Your task to perform on an android device: Open Chrome and go to settings Image 0: 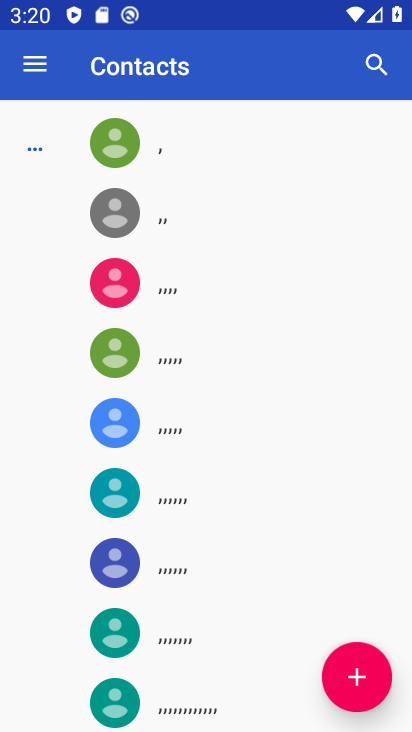
Step 0: press back button
Your task to perform on an android device: Open Chrome and go to settings Image 1: 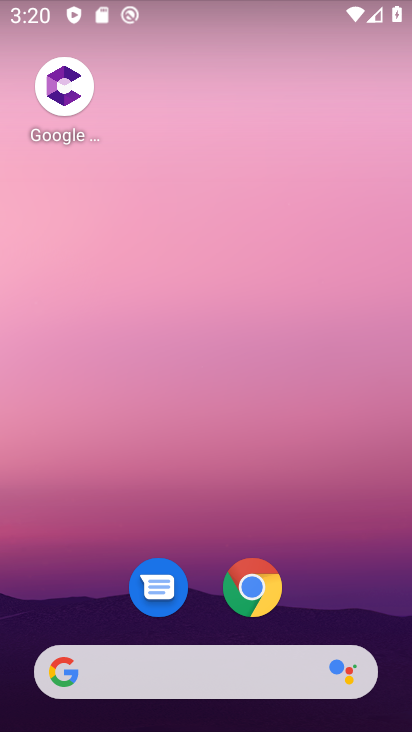
Step 1: drag from (372, 553) to (290, 29)
Your task to perform on an android device: Open Chrome and go to settings Image 2: 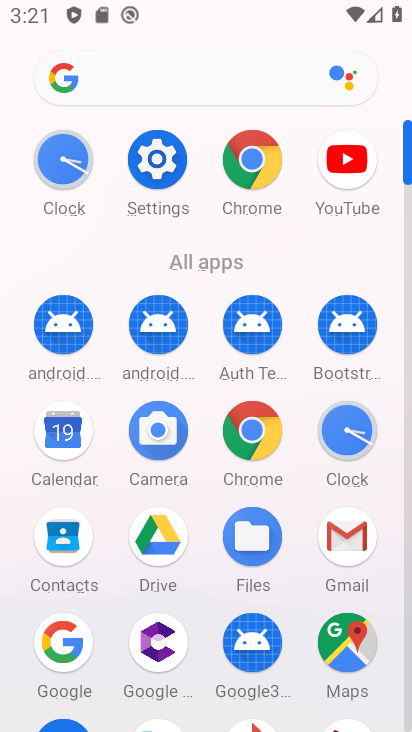
Step 2: click (250, 157)
Your task to perform on an android device: Open Chrome and go to settings Image 3: 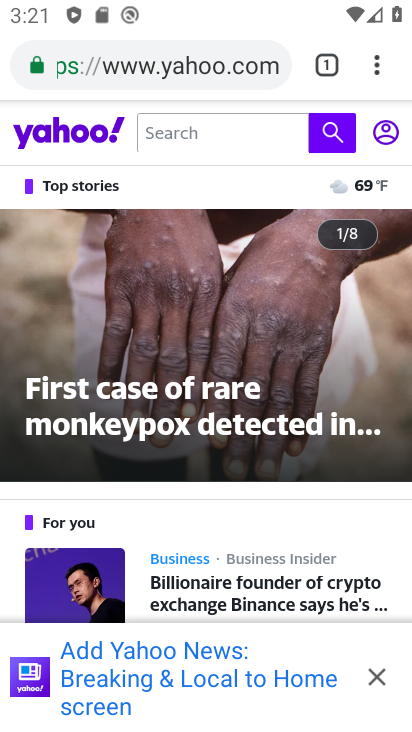
Step 3: task complete